Your task to perform on an android device: turn on airplane mode Image 0: 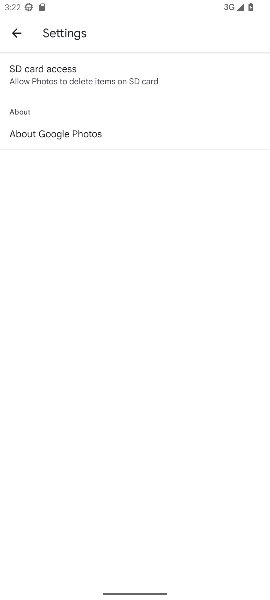
Step 0: press home button
Your task to perform on an android device: turn on airplane mode Image 1: 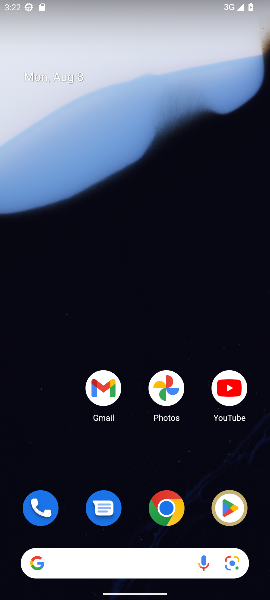
Step 1: drag from (140, 464) to (138, 89)
Your task to perform on an android device: turn on airplane mode Image 2: 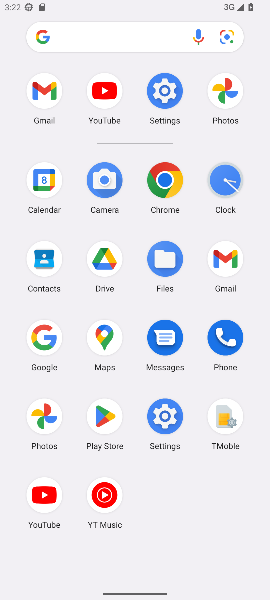
Step 2: click (165, 90)
Your task to perform on an android device: turn on airplane mode Image 3: 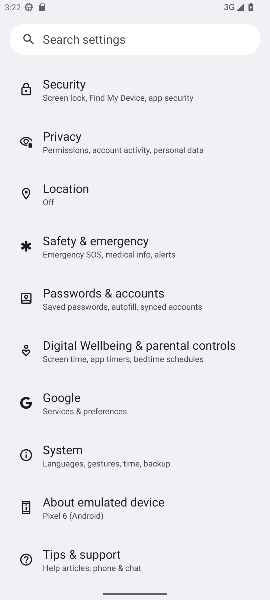
Step 3: drag from (160, 133) to (182, 592)
Your task to perform on an android device: turn on airplane mode Image 4: 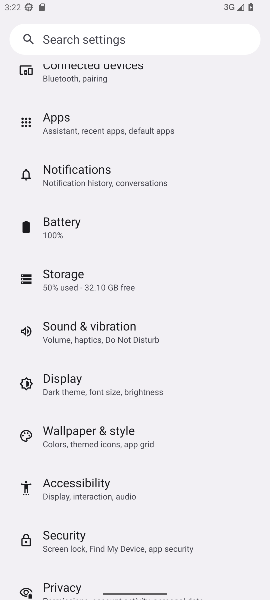
Step 4: drag from (173, 85) to (239, 570)
Your task to perform on an android device: turn on airplane mode Image 5: 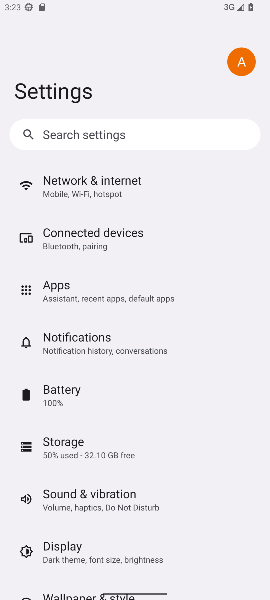
Step 5: click (90, 183)
Your task to perform on an android device: turn on airplane mode Image 6: 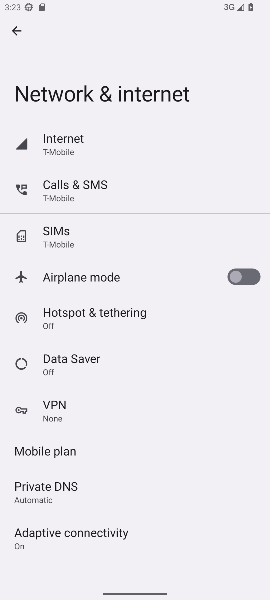
Step 6: click (235, 278)
Your task to perform on an android device: turn on airplane mode Image 7: 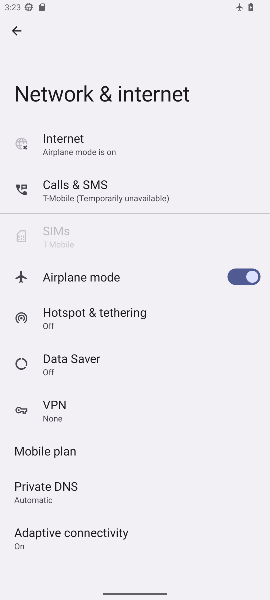
Step 7: task complete